Your task to perform on an android device: Open Google Chrome Image 0: 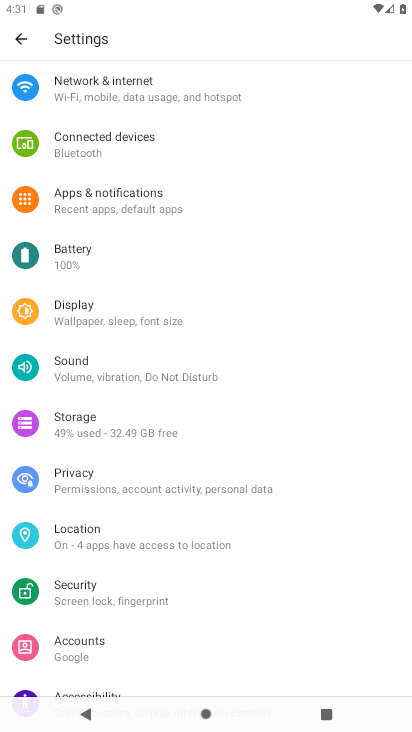
Step 0: press home button
Your task to perform on an android device: Open Google Chrome Image 1: 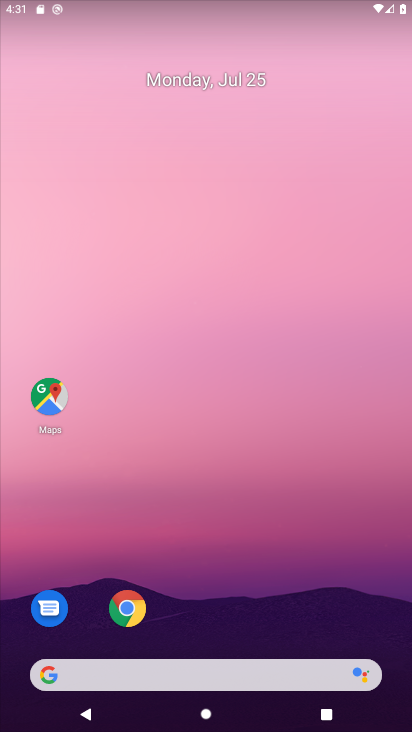
Step 1: click (124, 633)
Your task to perform on an android device: Open Google Chrome Image 2: 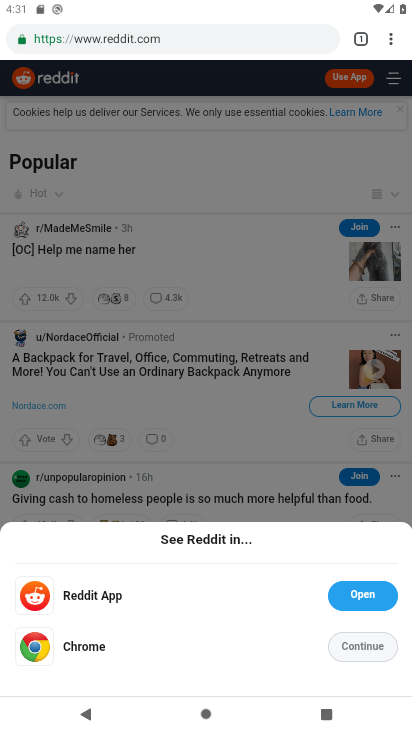
Step 2: click (374, 653)
Your task to perform on an android device: Open Google Chrome Image 3: 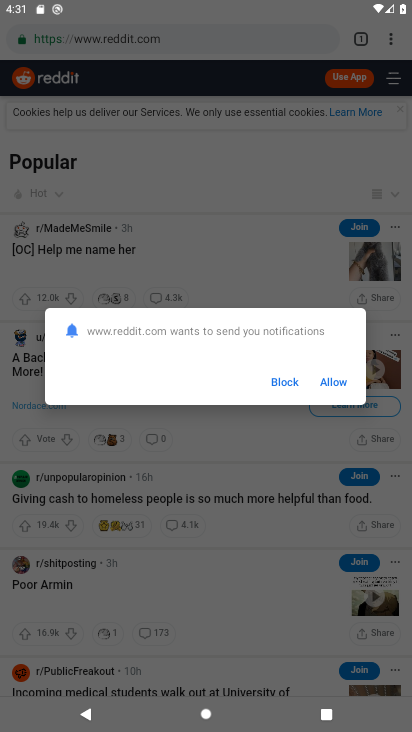
Step 3: task complete